Your task to perform on an android device: turn on showing notifications on the lock screen Image 0: 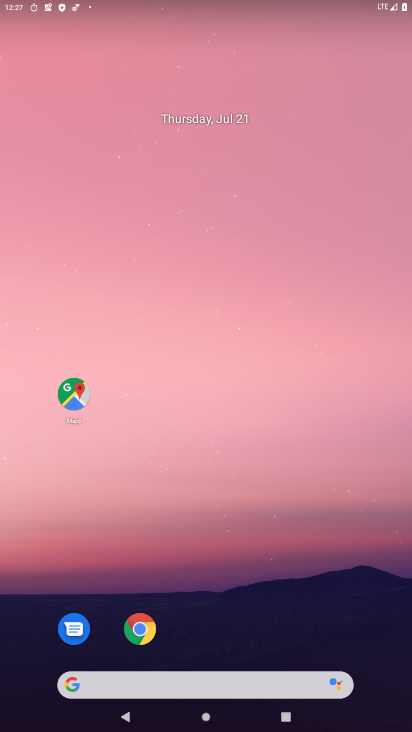
Step 0: drag from (219, 580) to (240, 186)
Your task to perform on an android device: turn on showing notifications on the lock screen Image 1: 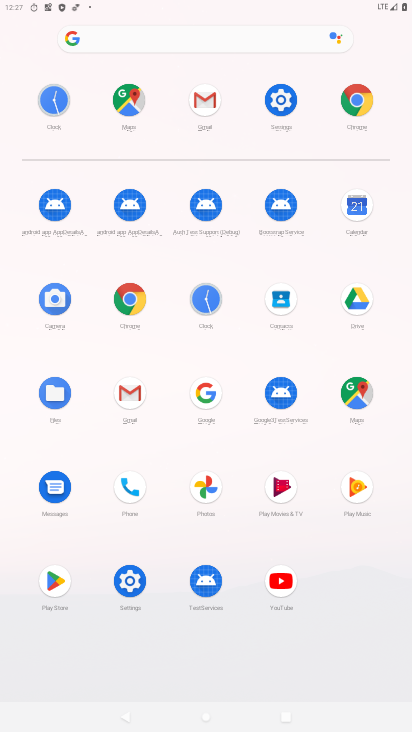
Step 1: click (276, 104)
Your task to perform on an android device: turn on showing notifications on the lock screen Image 2: 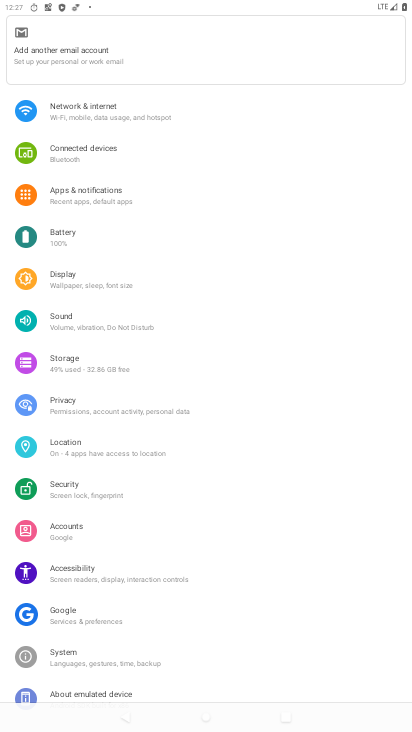
Step 2: click (117, 187)
Your task to perform on an android device: turn on showing notifications on the lock screen Image 3: 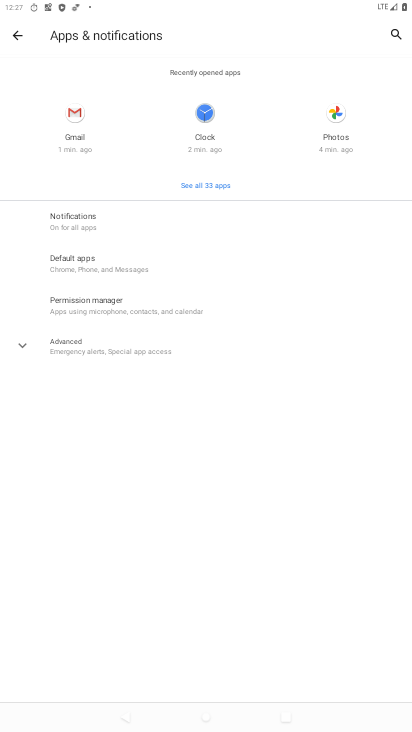
Step 3: click (80, 220)
Your task to perform on an android device: turn on showing notifications on the lock screen Image 4: 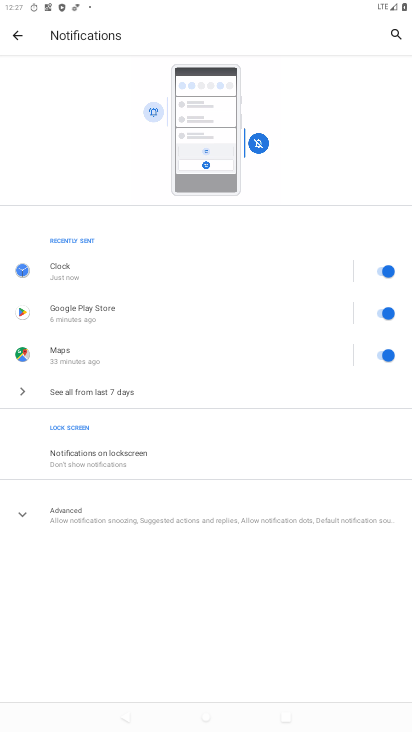
Step 4: click (115, 515)
Your task to perform on an android device: turn on showing notifications on the lock screen Image 5: 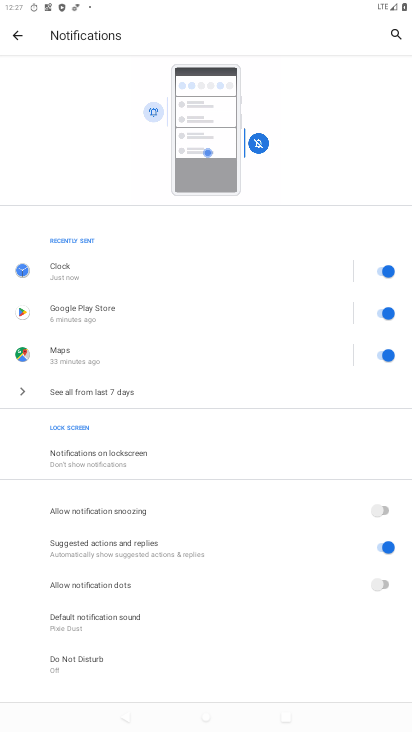
Step 5: click (146, 457)
Your task to perform on an android device: turn on showing notifications on the lock screen Image 6: 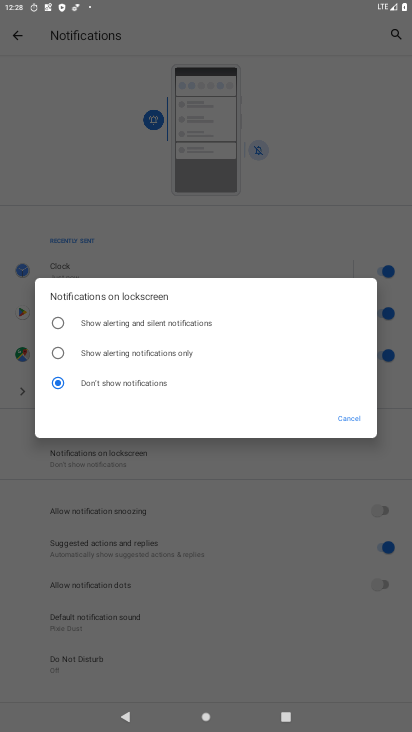
Step 6: click (57, 321)
Your task to perform on an android device: turn on showing notifications on the lock screen Image 7: 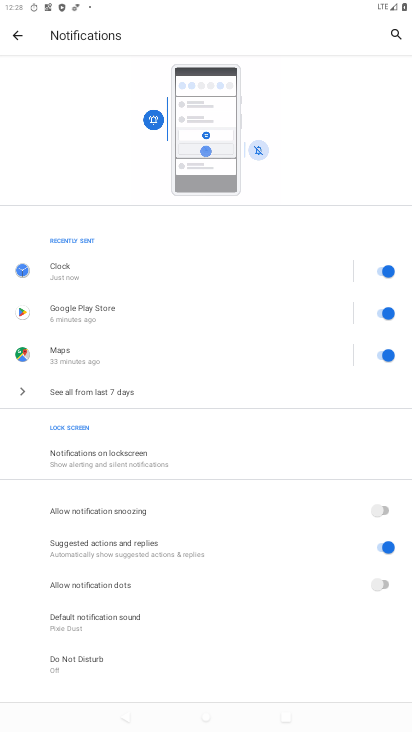
Step 7: task complete